Your task to perform on an android device: open app "Google News" (install if not already installed) Image 0: 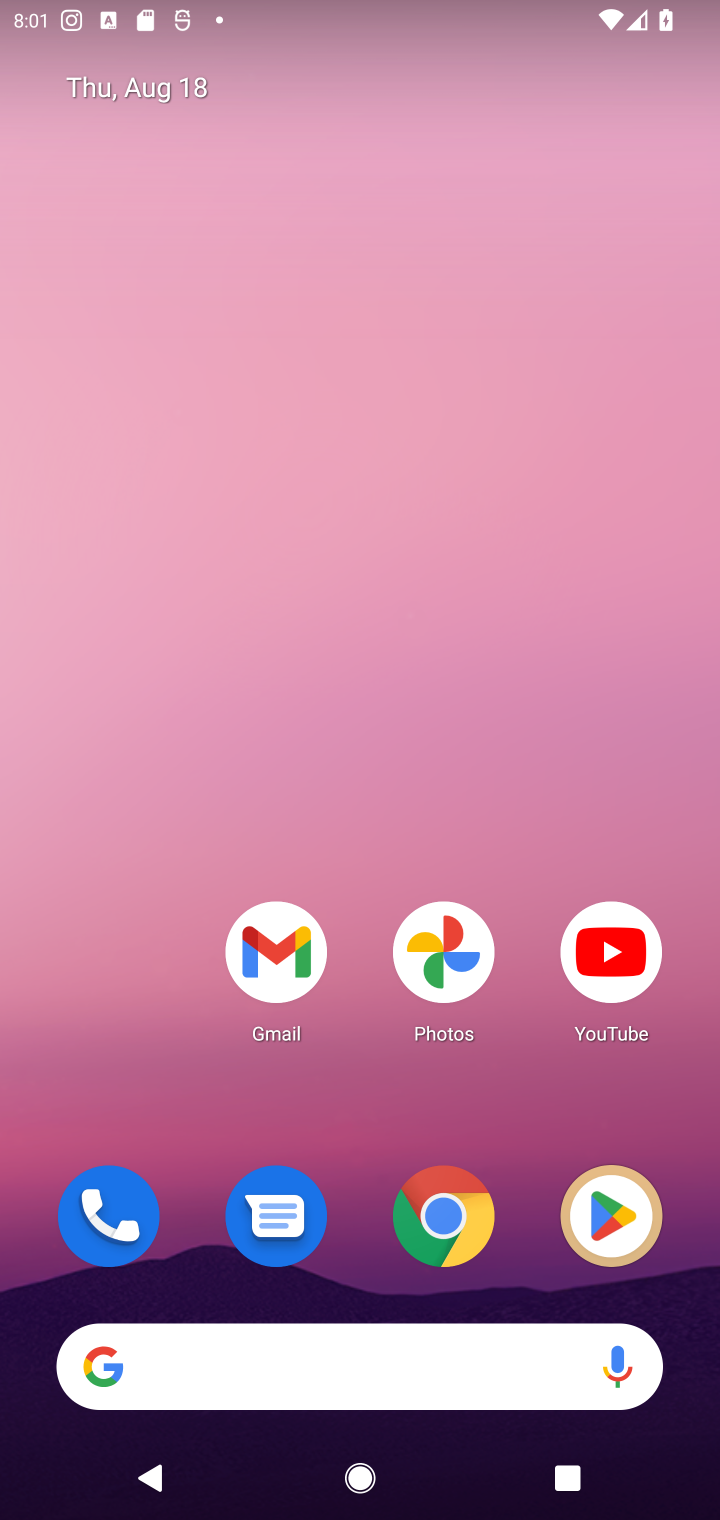
Step 0: click (603, 1210)
Your task to perform on an android device: open app "Google News" (install if not already installed) Image 1: 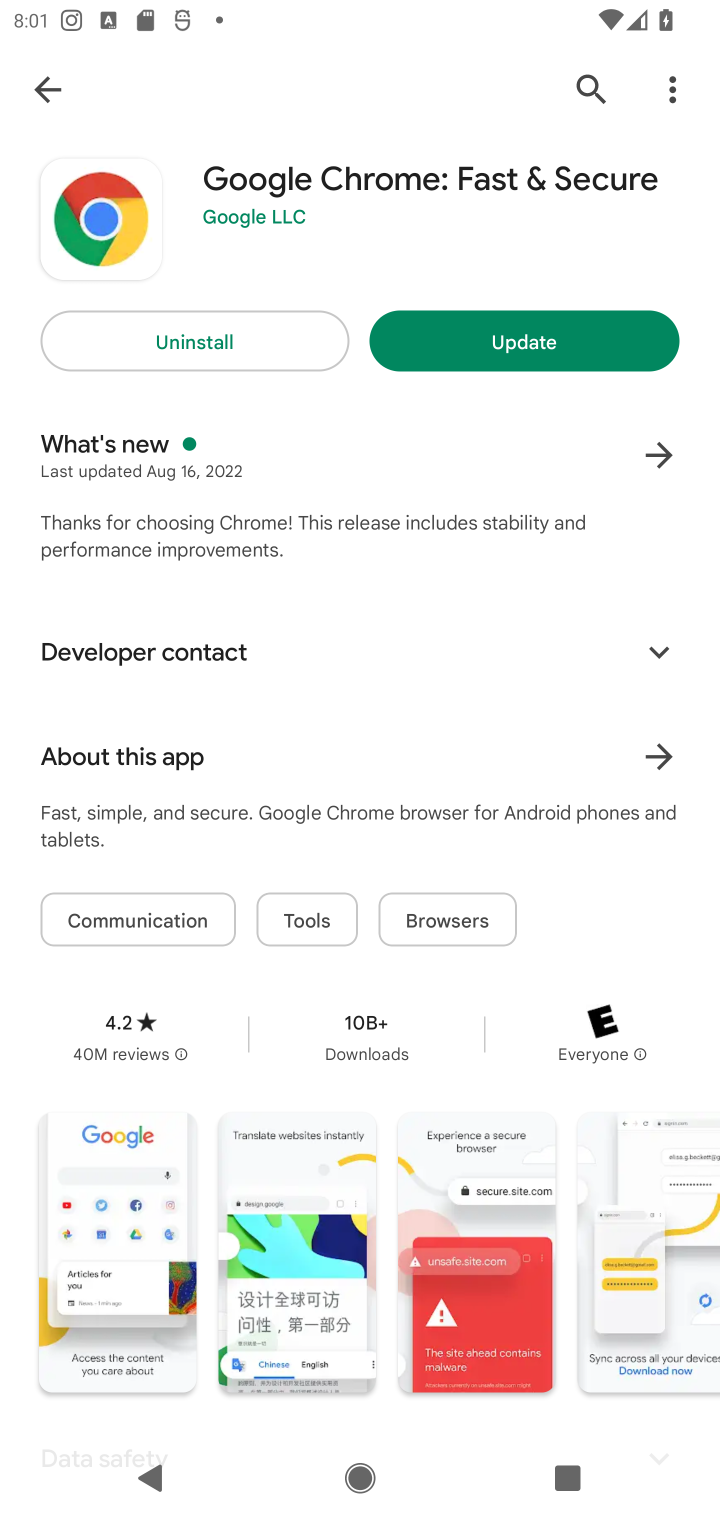
Step 1: click (587, 79)
Your task to perform on an android device: open app "Google News" (install if not already installed) Image 2: 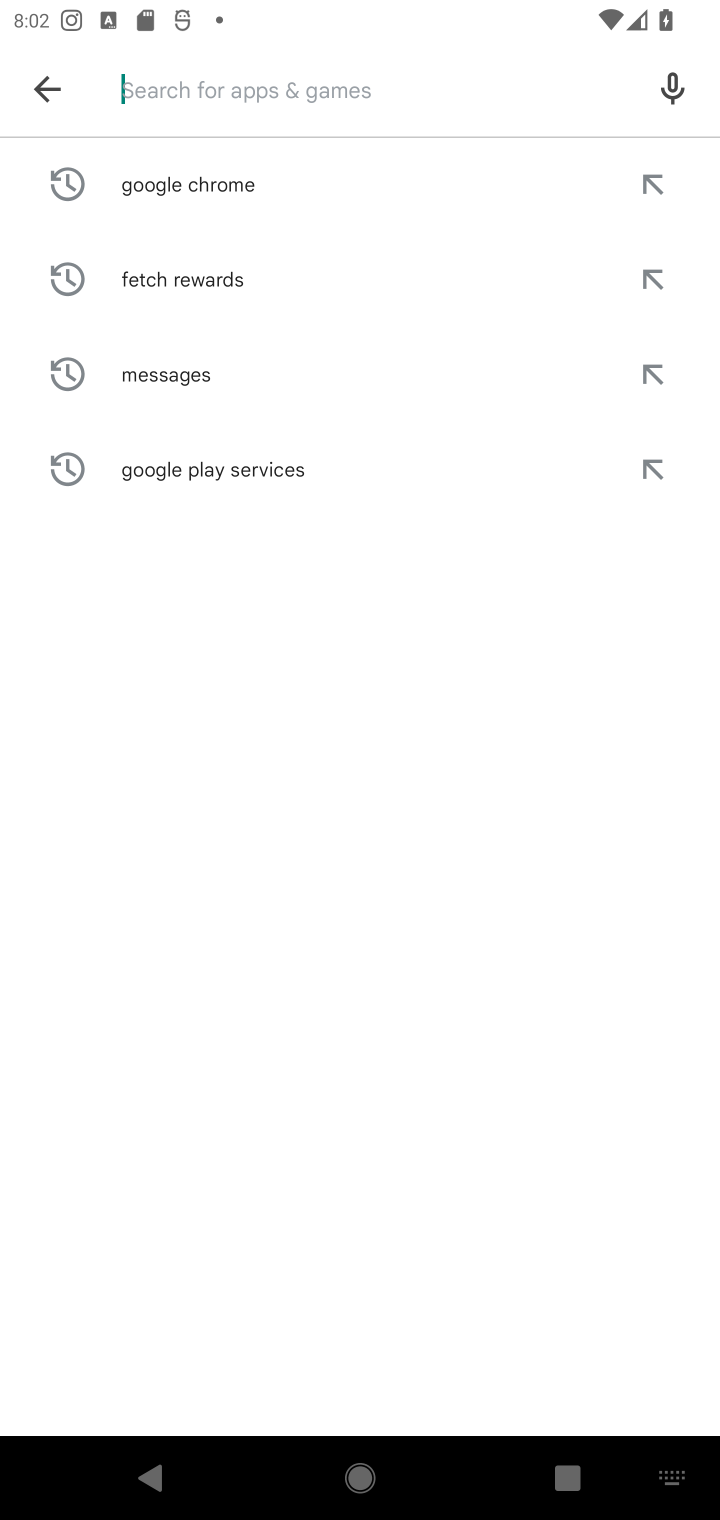
Step 2: type "Google News"
Your task to perform on an android device: open app "Google News" (install if not already installed) Image 3: 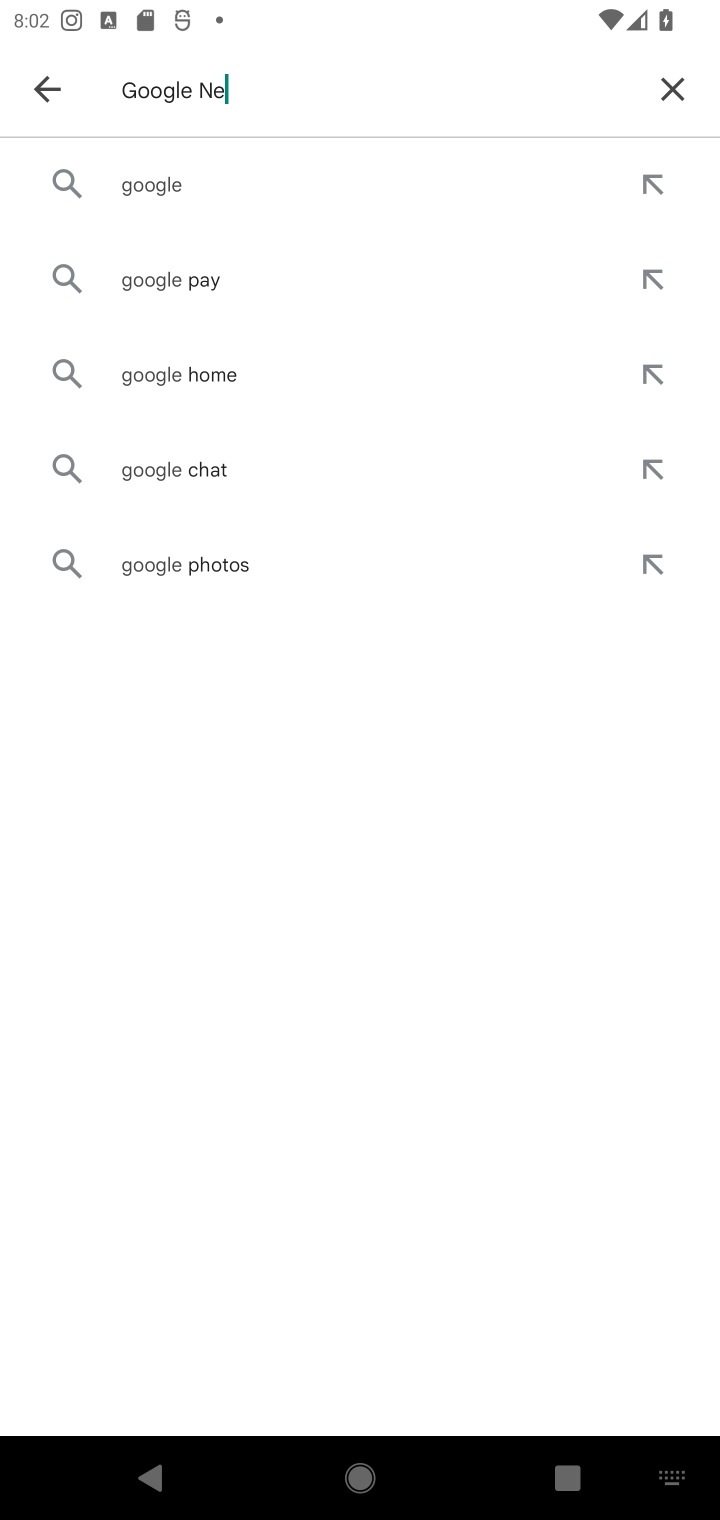
Step 3: type ""
Your task to perform on an android device: open app "Google News" (install if not already installed) Image 4: 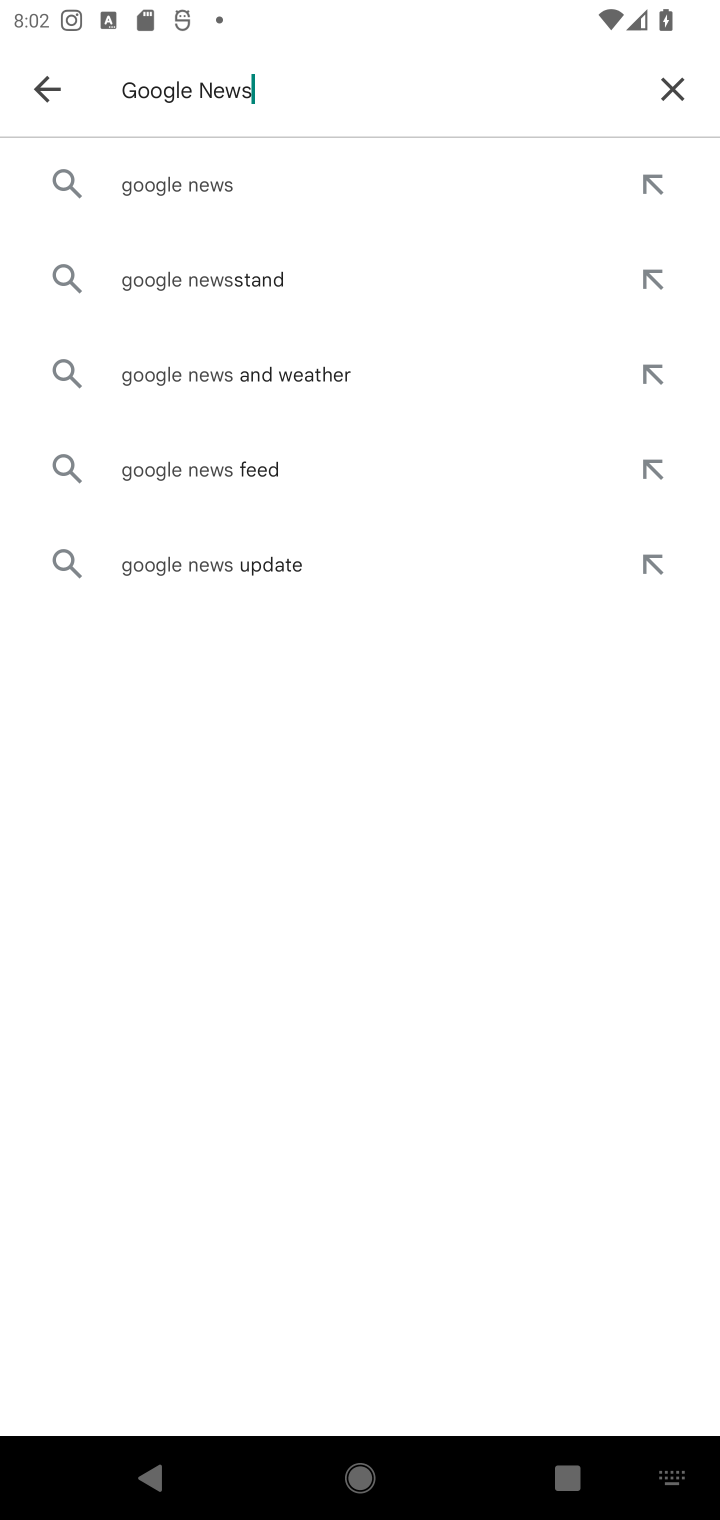
Step 4: click (285, 194)
Your task to perform on an android device: open app "Google News" (install if not already installed) Image 5: 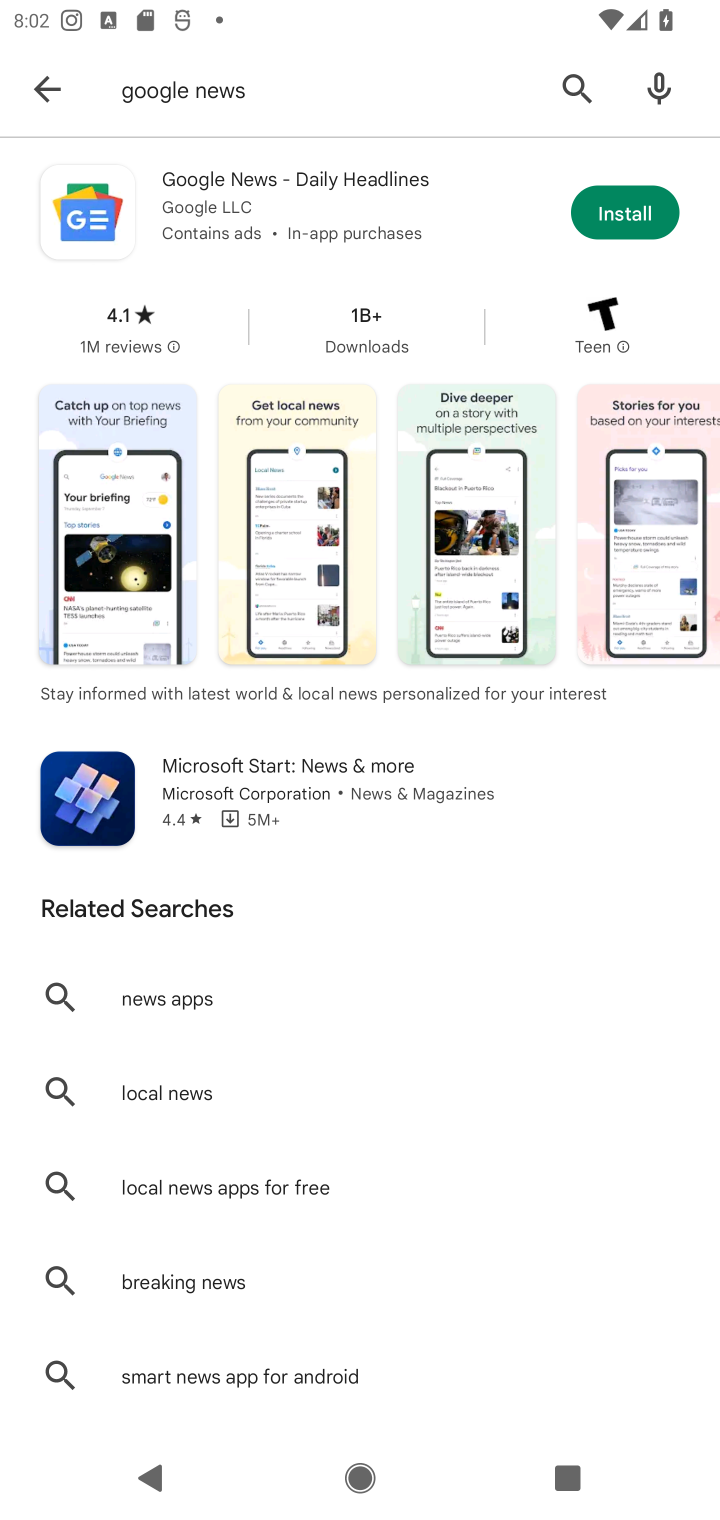
Step 5: click (636, 213)
Your task to perform on an android device: open app "Google News" (install if not already installed) Image 6: 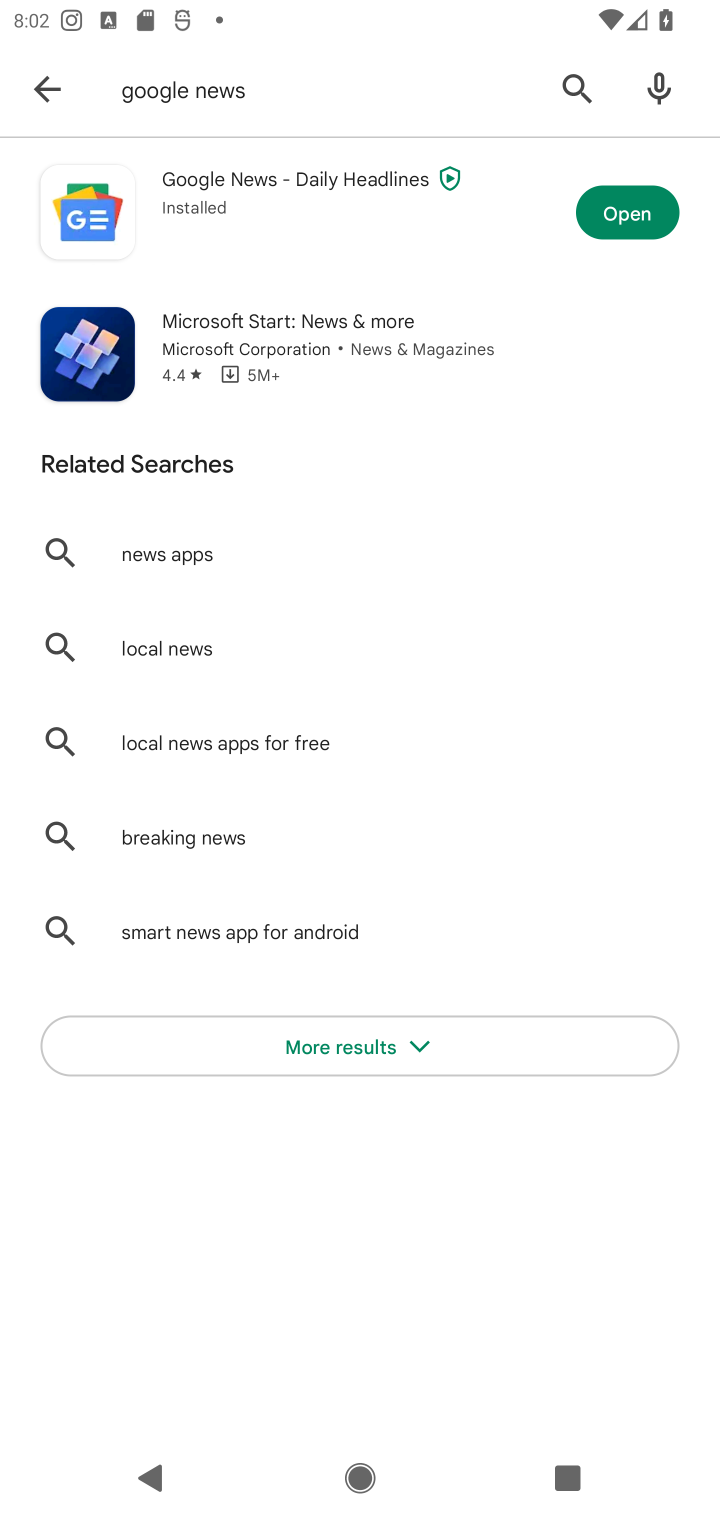
Step 6: click (636, 213)
Your task to perform on an android device: open app "Google News" (install if not already installed) Image 7: 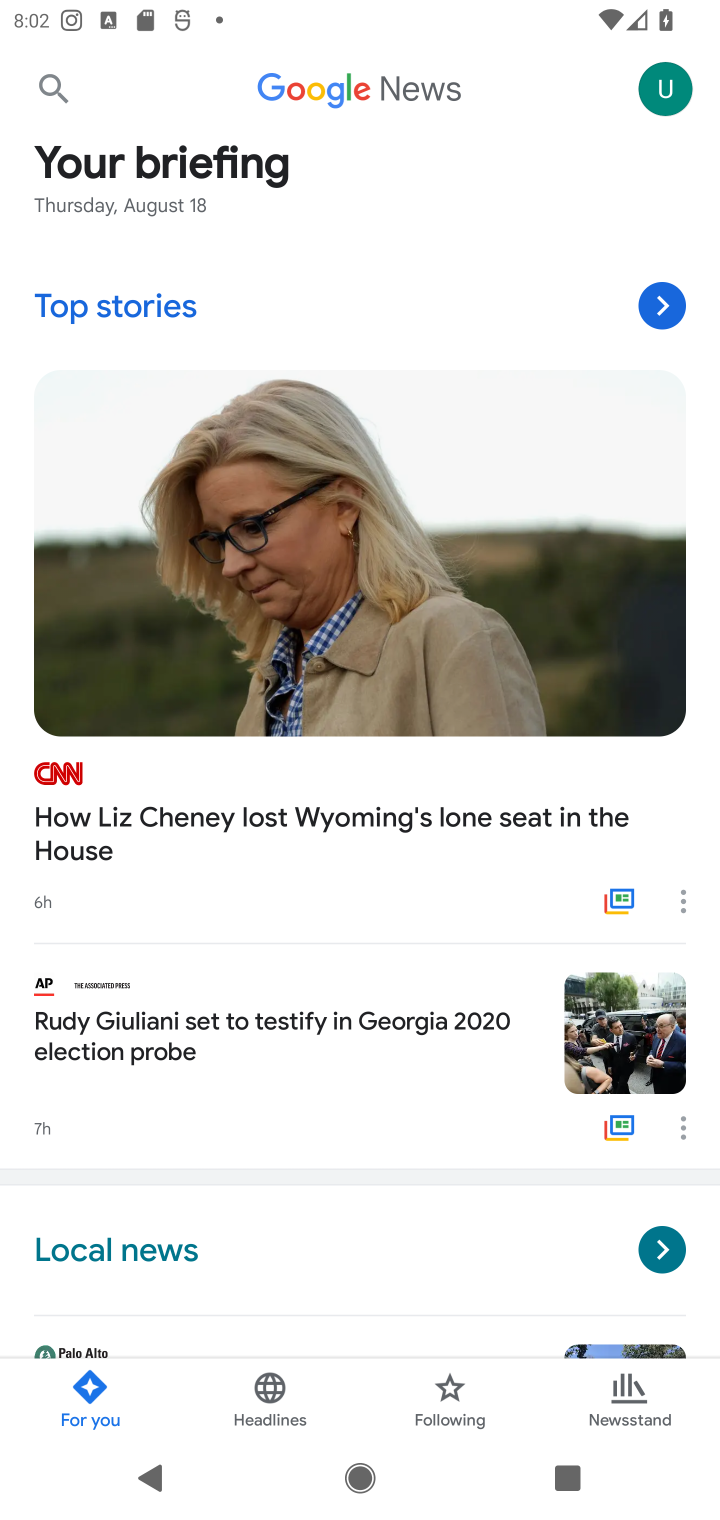
Step 7: task complete